Your task to perform on an android device: Show me productivity apps on the Play Store Image 0: 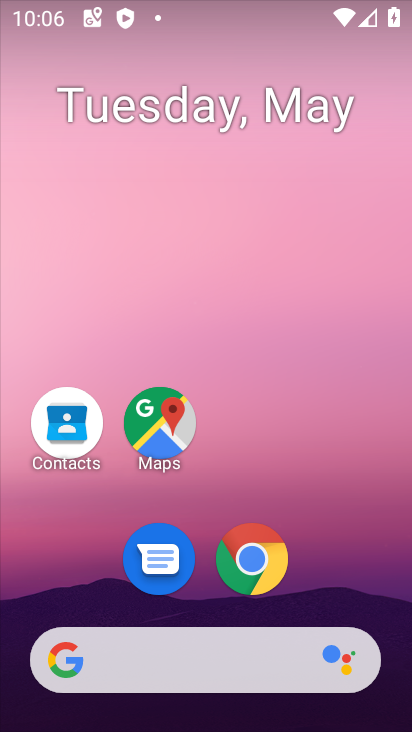
Step 0: drag from (374, 545) to (290, 181)
Your task to perform on an android device: Show me productivity apps on the Play Store Image 1: 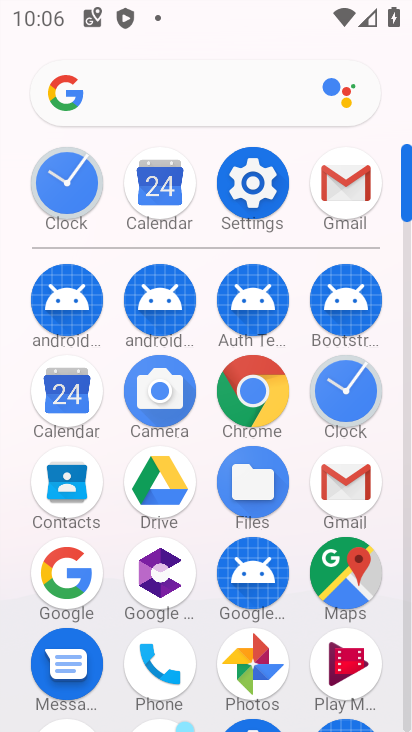
Step 1: click (408, 686)
Your task to perform on an android device: Show me productivity apps on the Play Store Image 2: 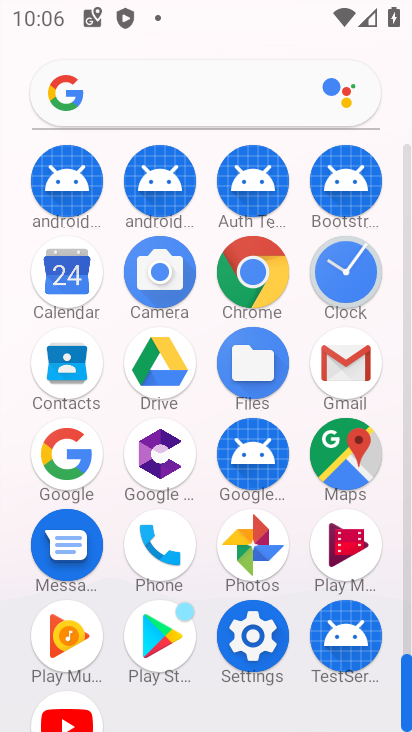
Step 2: click (147, 617)
Your task to perform on an android device: Show me productivity apps on the Play Store Image 3: 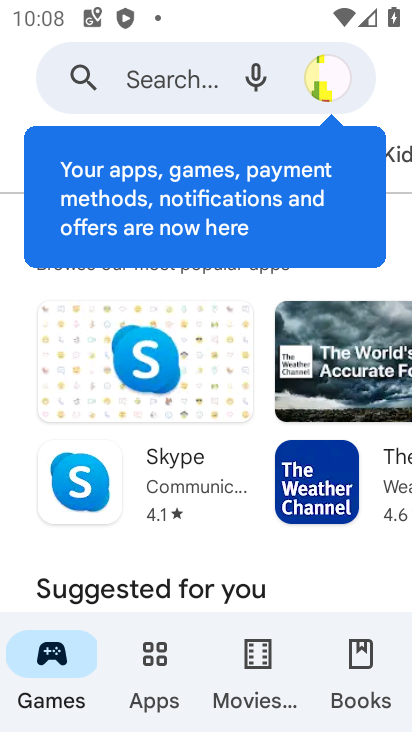
Step 3: click (169, 656)
Your task to perform on an android device: Show me productivity apps on the Play Store Image 4: 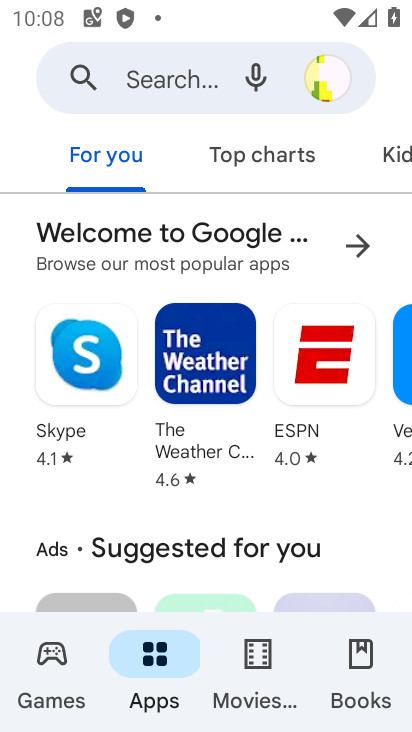
Step 4: click (232, 155)
Your task to perform on an android device: Show me productivity apps on the Play Store Image 5: 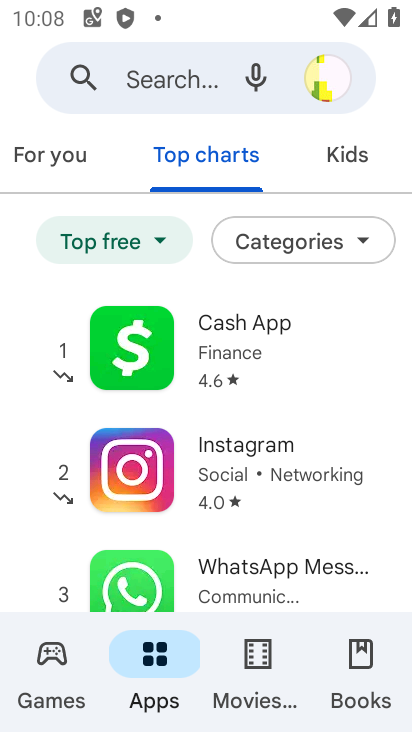
Step 5: click (284, 249)
Your task to perform on an android device: Show me productivity apps on the Play Store Image 6: 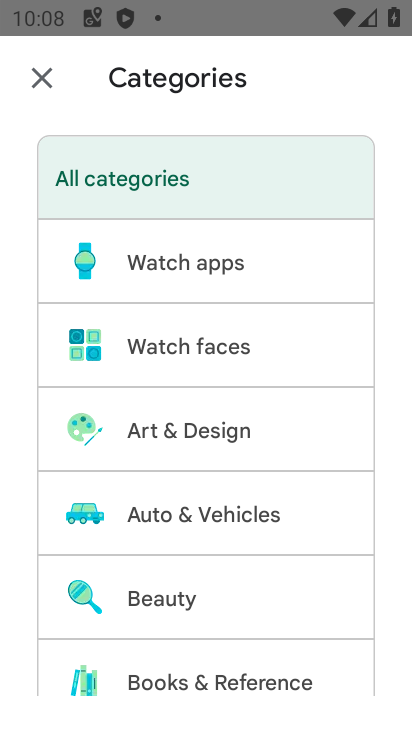
Step 6: drag from (217, 659) to (294, 211)
Your task to perform on an android device: Show me productivity apps on the Play Store Image 7: 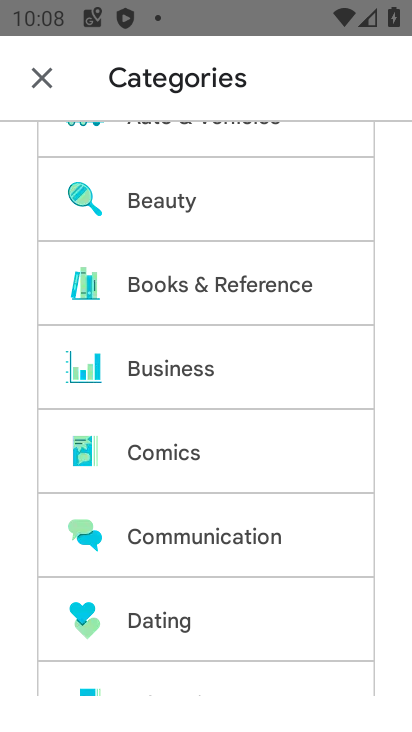
Step 7: drag from (225, 668) to (263, 299)
Your task to perform on an android device: Show me productivity apps on the Play Store Image 8: 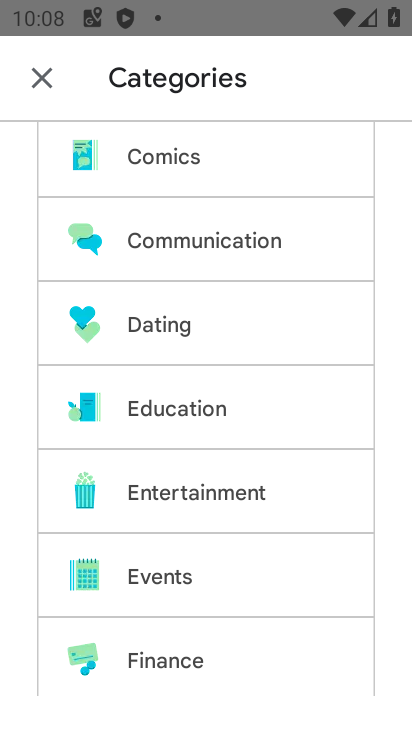
Step 8: drag from (269, 651) to (285, 388)
Your task to perform on an android device: Show me productivity apps on the Play Store Image 9: 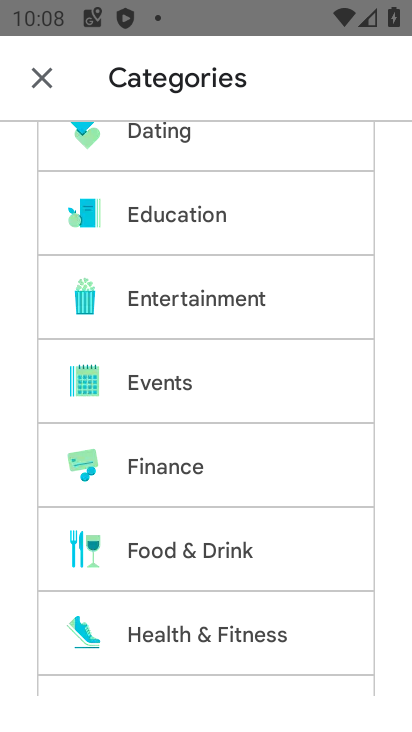
Step 9: drag from (234, 670) to (238, 361)
Your task to perform on an android device: Show me productivity apps on the Play Store Image 10: 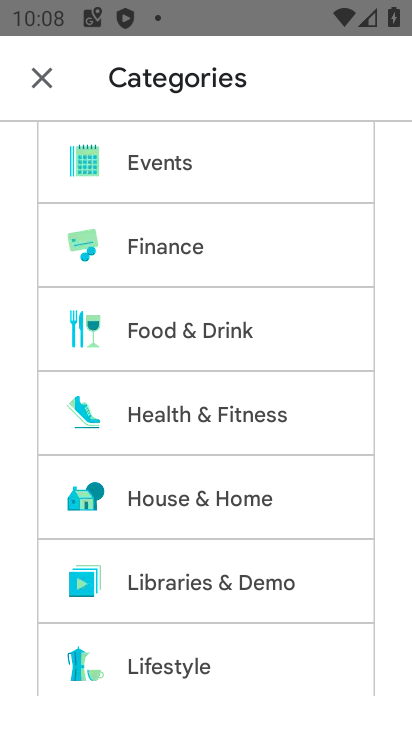
Step 10: drag from (195, 625) to (242, 341)
Your task to perform on an android device: Show me productivity apps on the Play Store Image 11: 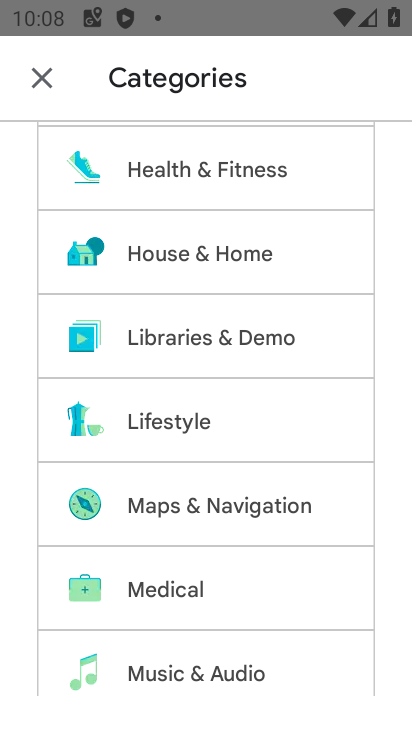
Step 11: drag from (298, 579) to (300, 286)
Your task to perform on an android device: Show me productivity apps on the Play Store Image 12: 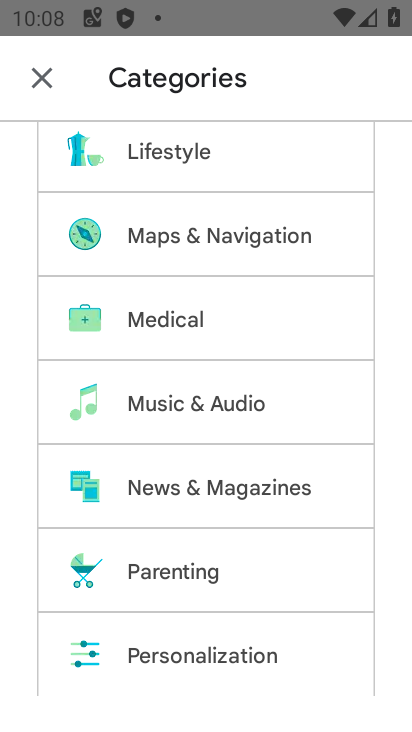
Step 12: drag from (263, 652) to (256, 350)
Your task to perform on an android device: Show me productivity apps on the Play Store Image 13: 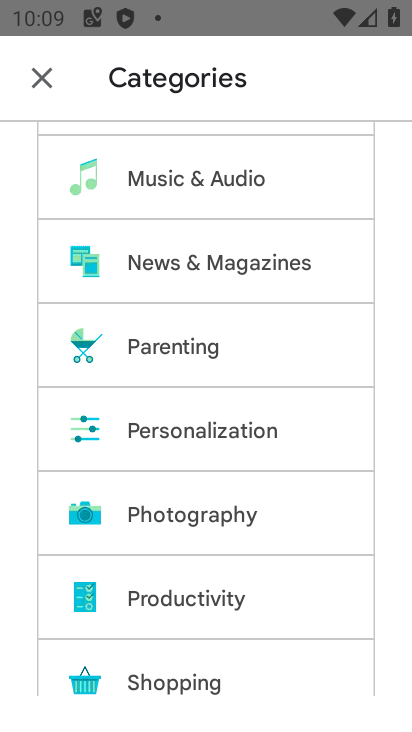
Step 13: click (252, 573)
Your task to perform on an android device: Show me productivity apps on the Play Store Image 14: 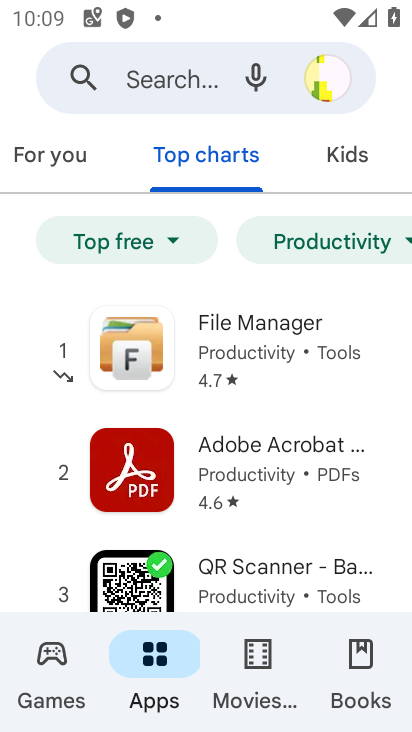
Step 14: task complete